Your task to perform on an android device: Go to accessibility settings Image 0: 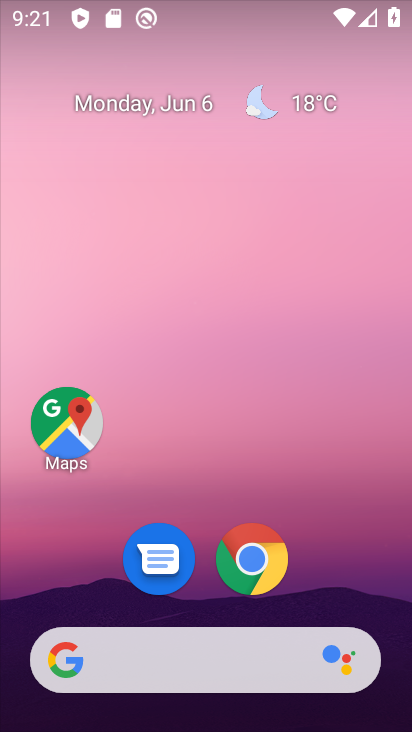
Step 0: drag from (221, 656) to (221, 145)
Your task to perform on an android device: Go to accessibility settings Image 1: 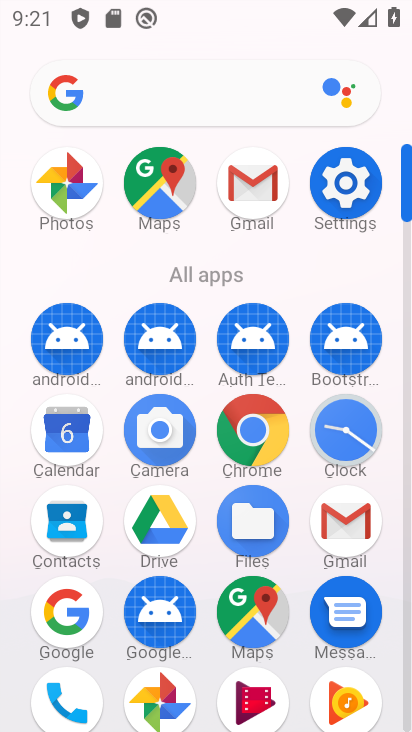
Step 1: click (349, 184)
Your task to perform on an android device: Go to accessibility settings Image 2: 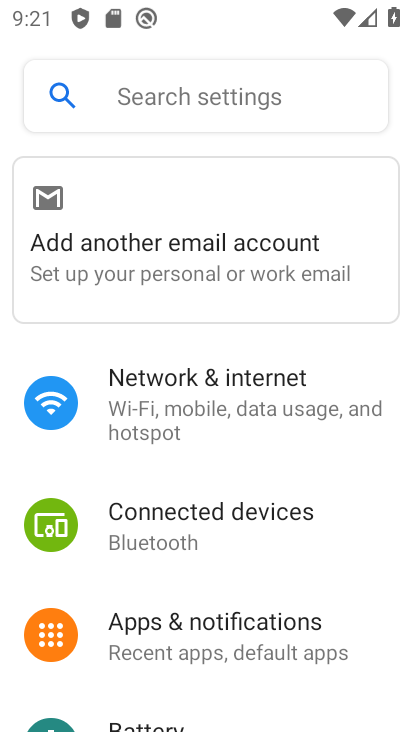
Step 2: drag from (196, 696) to (215, 348)
Your task to perform on an android device: Go to accessibility settings Image 3: 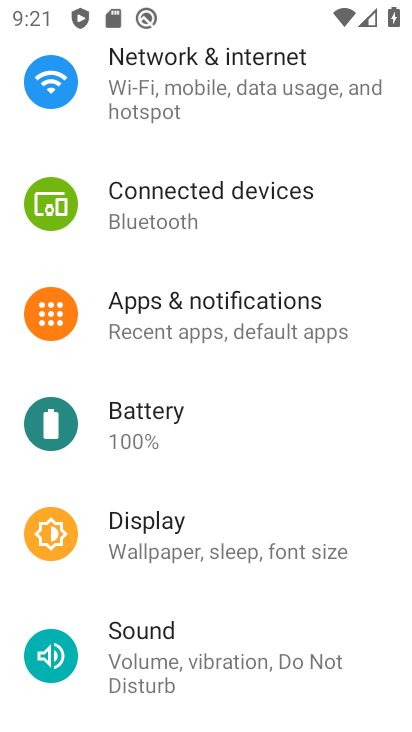
Step 3: drag from (235, 701) to (238, 292)
Your task to perform on an android device: Go to accessibility settings Image 4: 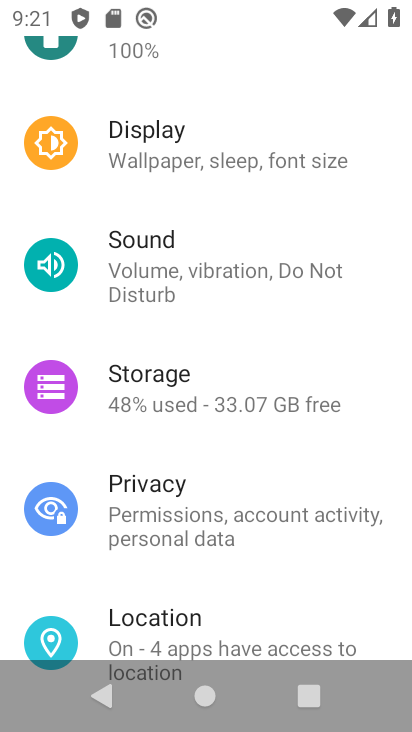
Step 4: drag from (225, 566) to (223, 297)
Your task to perform on an android device: Go to accessibility settings Image 5: 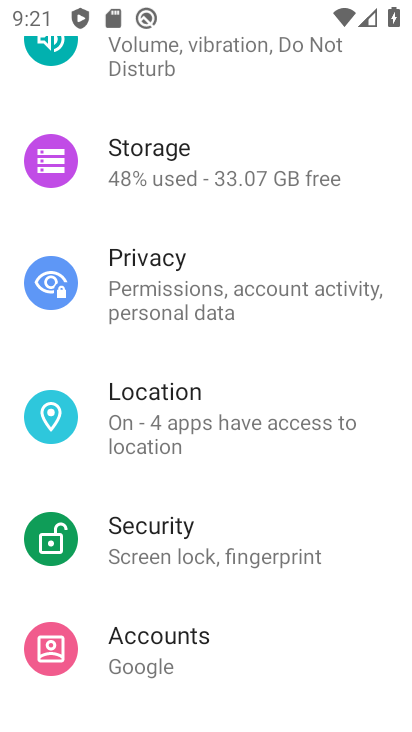
Step 5: drag from (216, 679) to (227, 327)
Your task to perform on an android device: Go to accessibility settings Image 6: 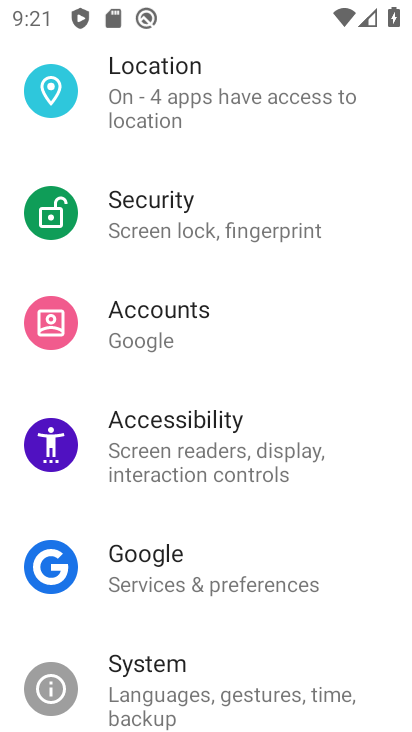
Step 6: click (159, 428)
Your task to perform on an android device: Go to accessibility settings Image 7: 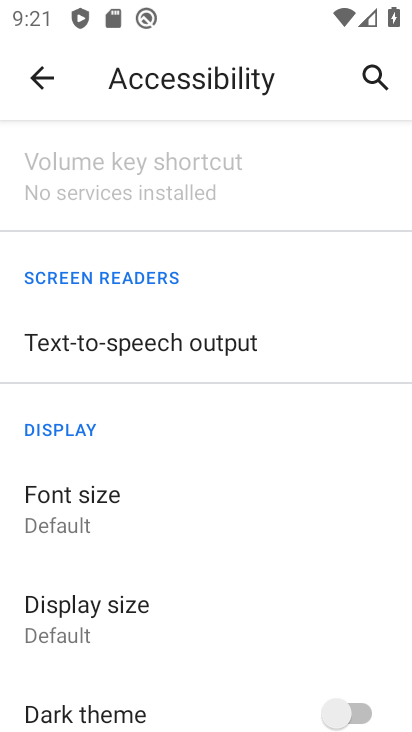
Step 7: task complete